Your task to perform on an android device: Go to battery settings Image 0: 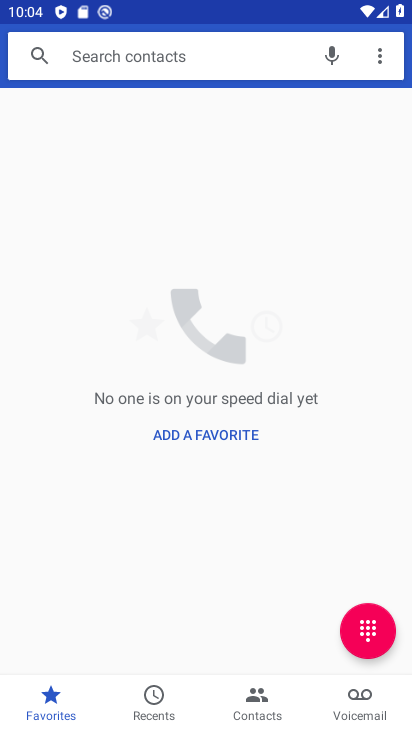
Step 0: press home button
Your task to perform on an android device: Go to battery settings Image 1: 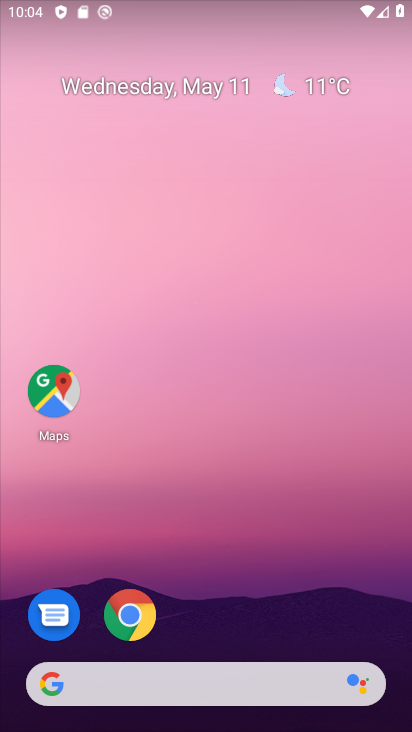
Step 1: drag from (246, 577) to (248, 147)
Your task to perform on an android device: Go to battery settings Image 2: 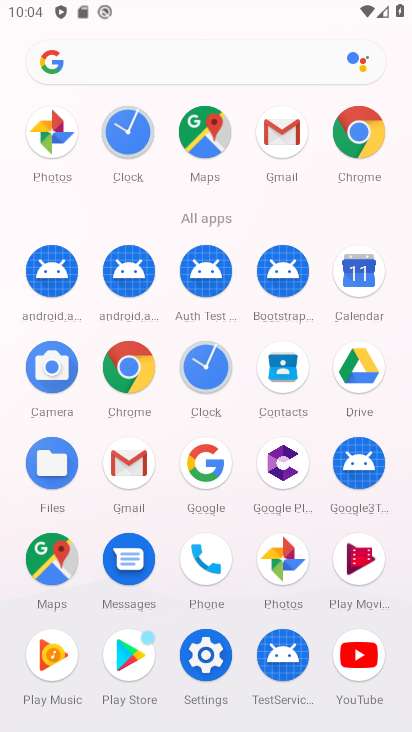
Step 2: click (203, 641)
Your task to perform on an android device: Go to battery settings Image 3: 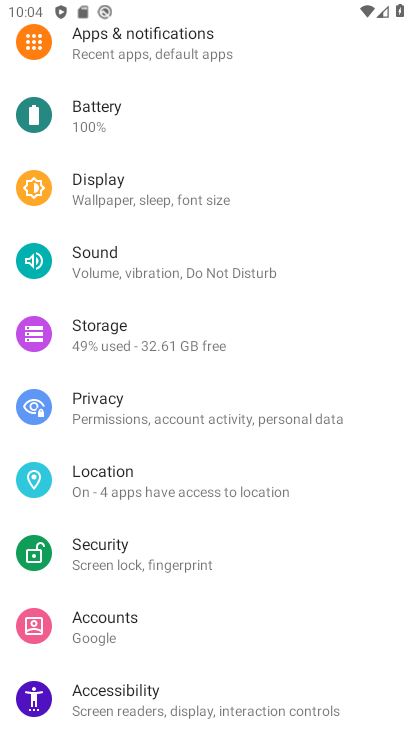
Step 3: drag from (205, 575) to (207, 706)
Your task to perform on an android device: Go to battery settings Image 4: 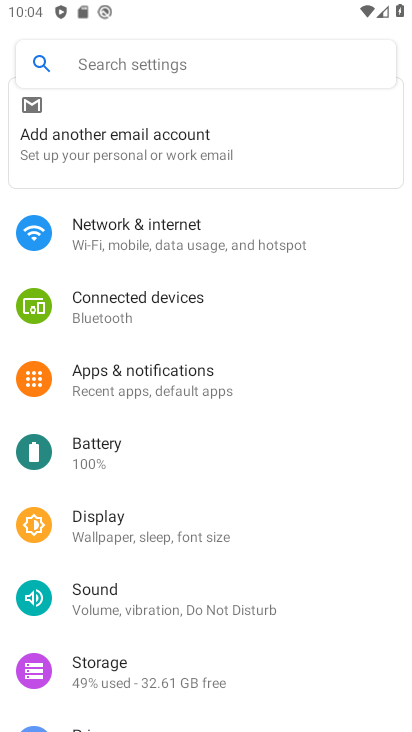
Step 4: click (207, 707)
Your task to perform on an android device: Go to battery settings Image 5: 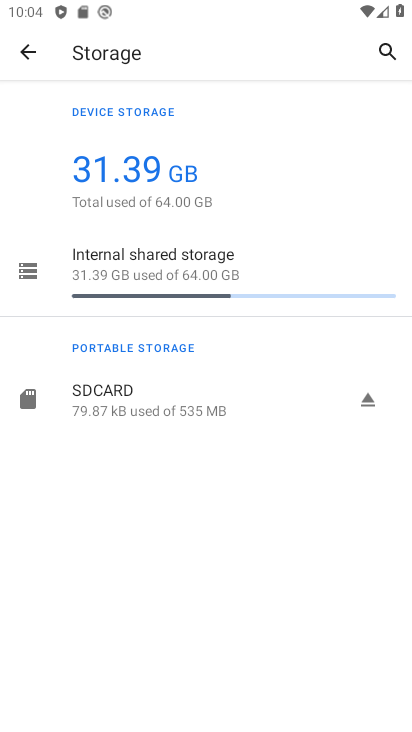
Step 5: click (35, 50)
Your task to perform on an android device: Go to battery settings Image 6: 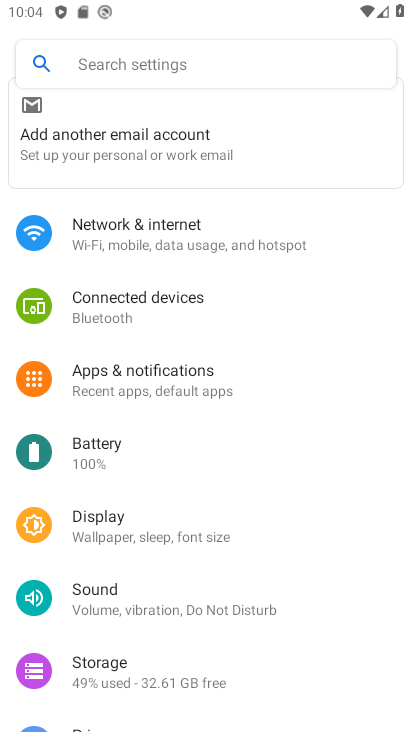
Step 6: click (104, 442)
Your task to perform on an android device: Go to battery settings Image 7: 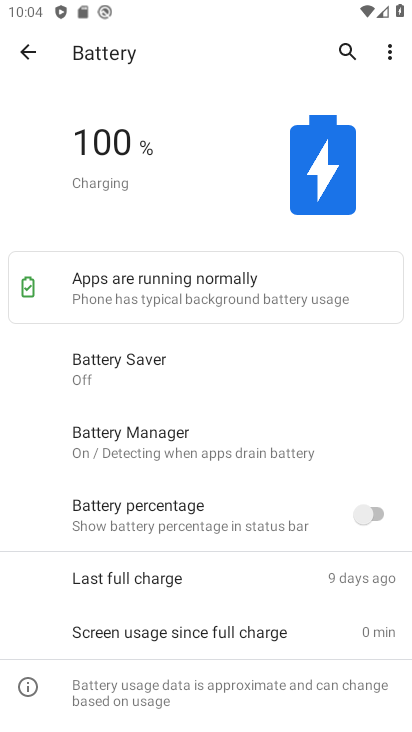
Step 7: task complete